Your task to perform on an android device: Go to Yahoo.com Image 0: 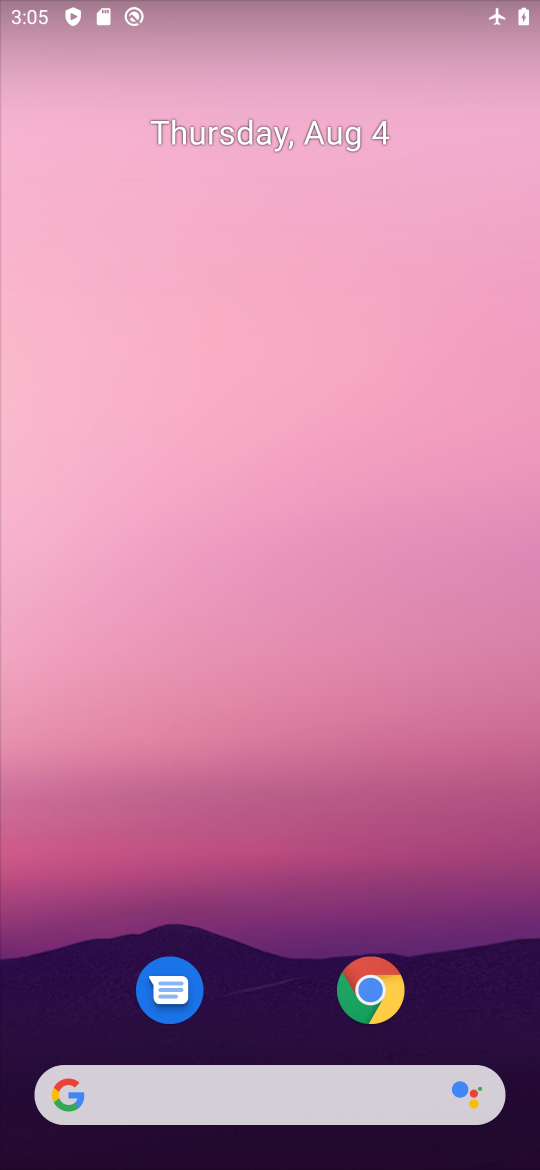
Step 0: click (385, 987)
Your task to perform on an android device: Go to Yahoo.com Image 1: 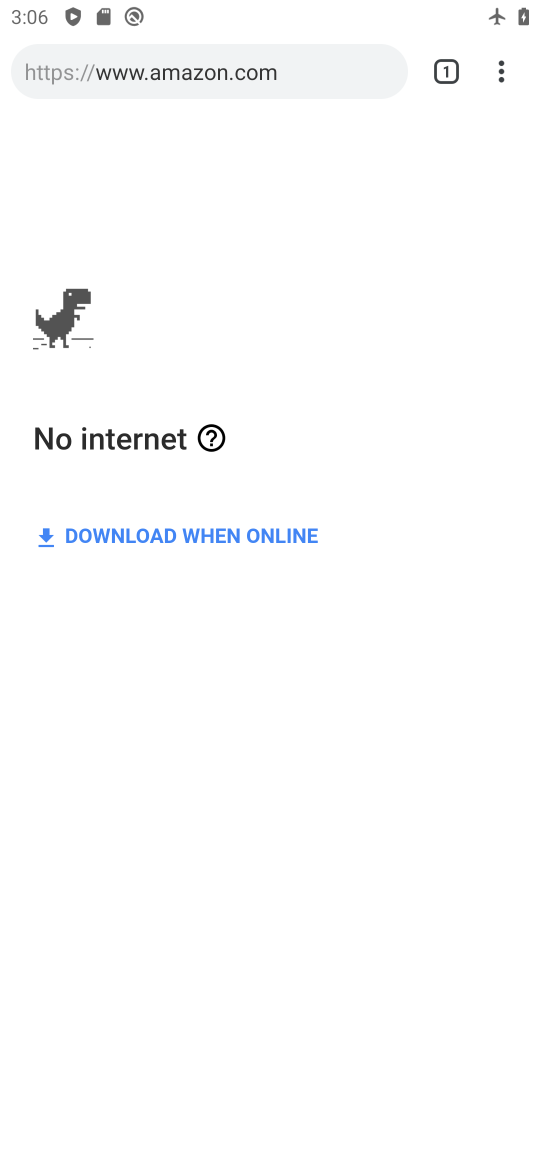
Step 1: task complete